Your task to perform on an android device: Add razer huntsman to the cart on newegg Image 0: 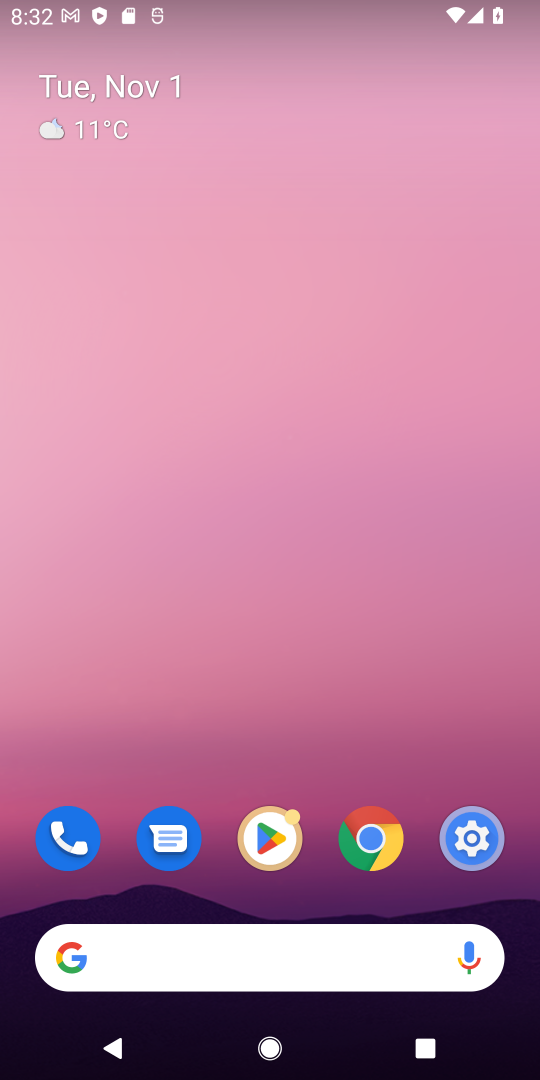
Step 0: click (172, 962)
Your task to perform on an android device: Add razer huntsman to the cart on newegg Image 1: 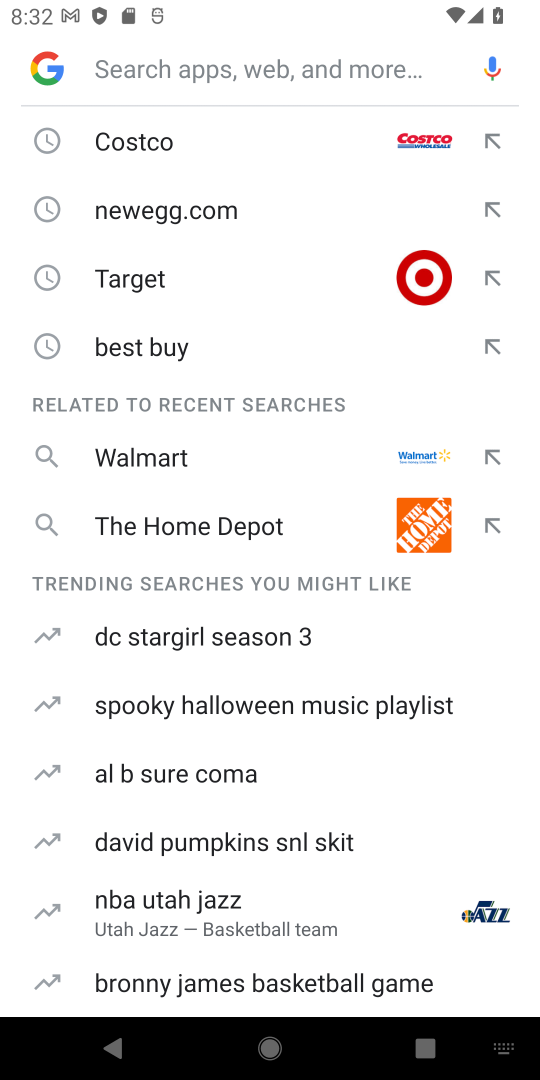
Step 1: type "newegg"
Your task to perform on an android device: Add razer huntsman to the cart on newegg Image 2: 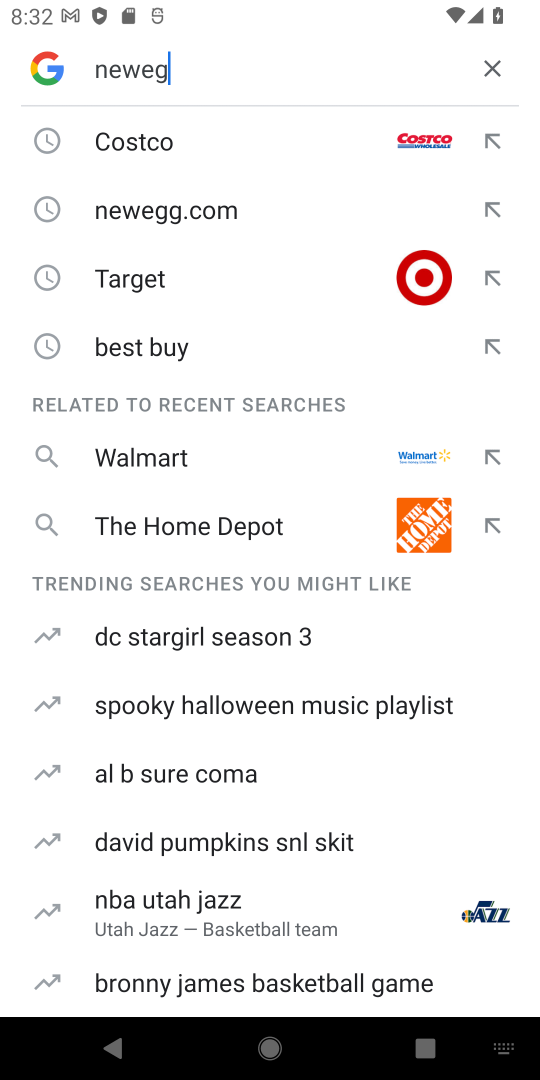
Step 2: press enter
Your task to perform on an android device: Add razer huntsman to the cart on newegg Image 3: 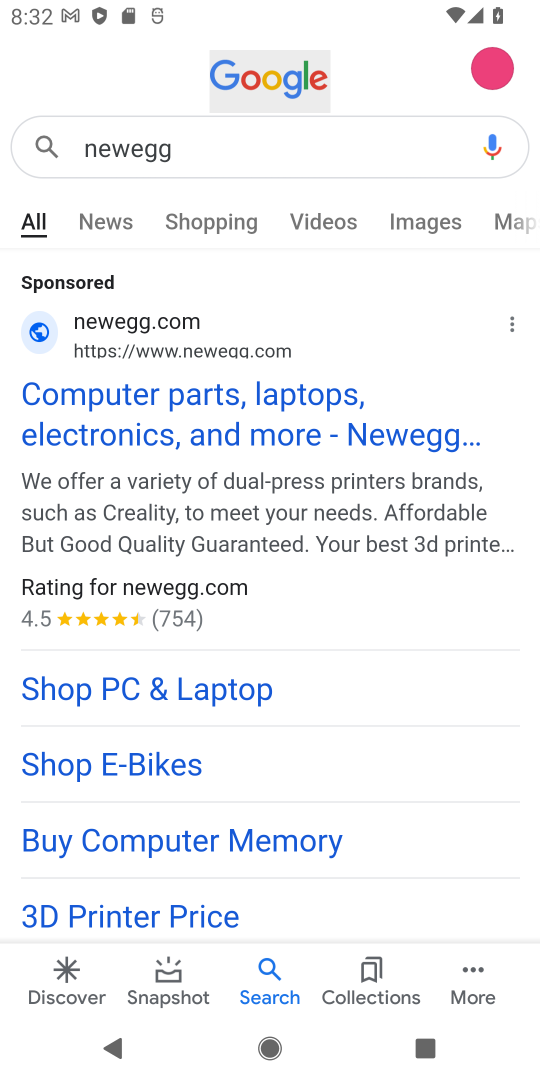
Step 3: drag from (385, 799) to (402, 451)
Your task to perform on an android device: Add razer huntsman to the cart on newegg Image 4: 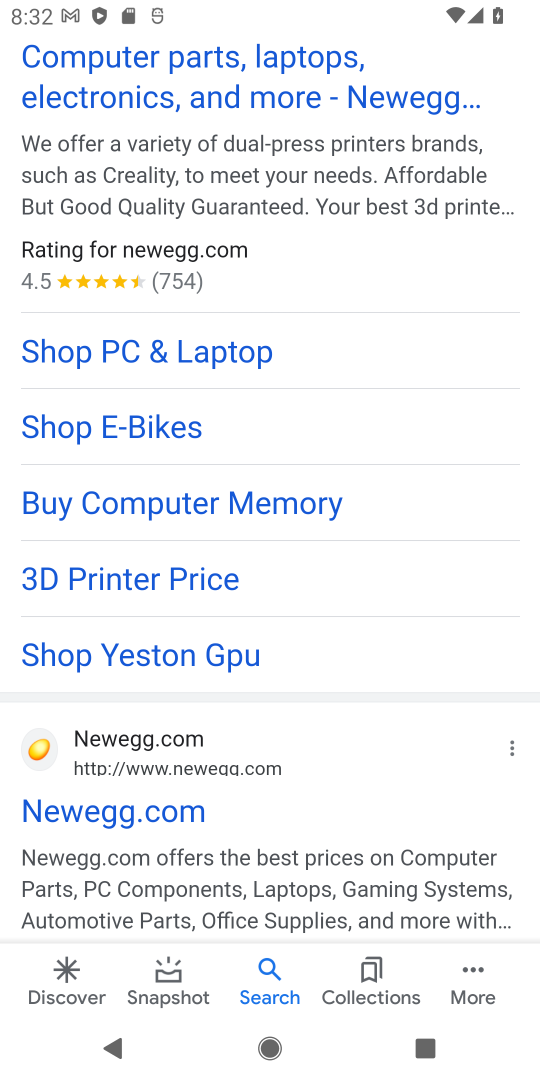
Step 4: click (174, 818)
Your task to perform on an android device: Add razer huntsman to the cart on newegg Image 5: 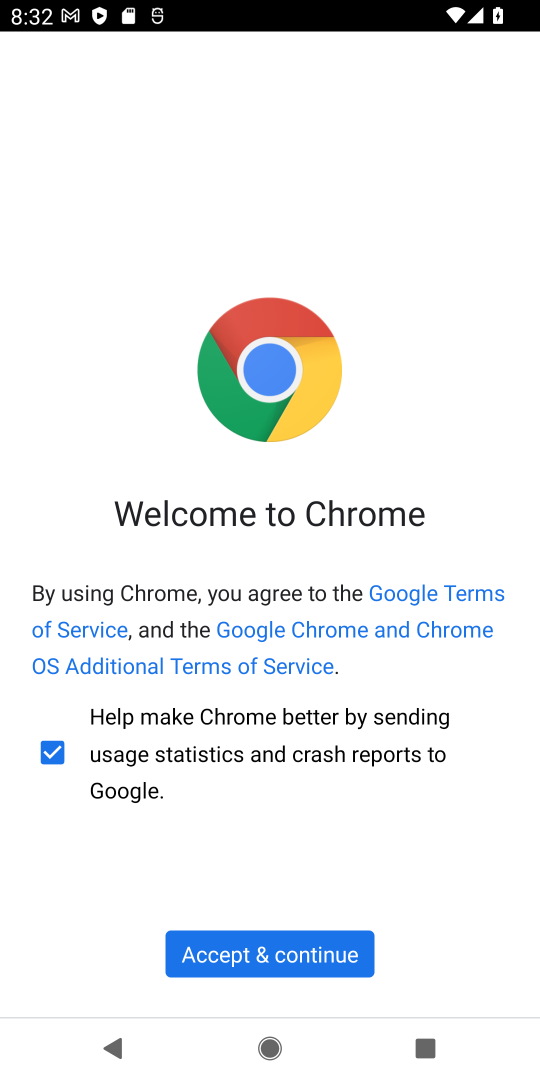
Step 5: click (317, 952)
Your task to perform on an android device: Add razer huntsman to the cart on newegg Image 6: 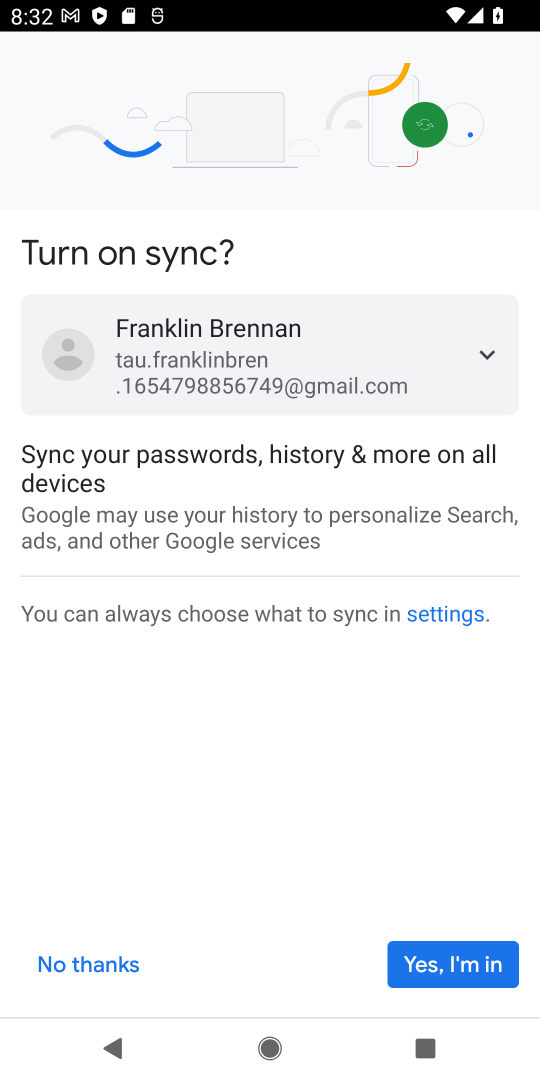
Step 6: click (455, 974)
Your task to perform on an android device: Add razer huntsman to the cart on newegg Image 7: 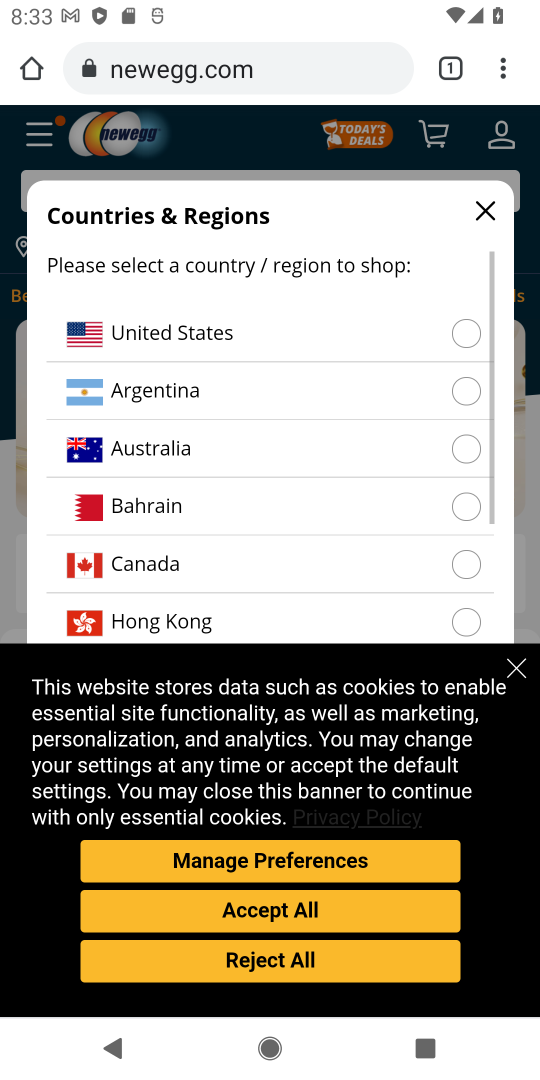
Step 7: click (81, 189)
Your task to perform on an android device: Add razer huntsman to the cart on newegg Image 8: 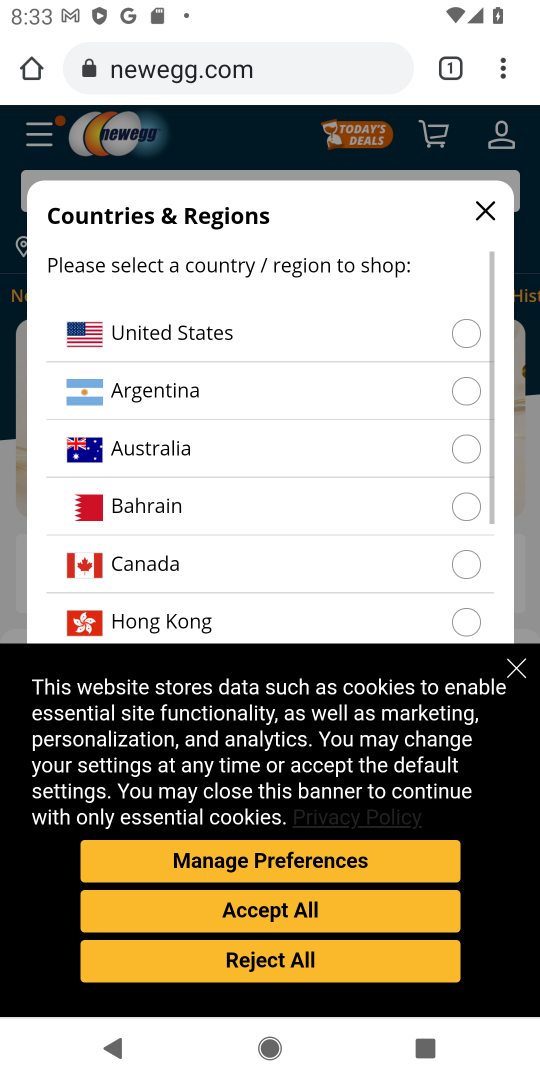
Step 8: click (485, 211)
Your task to perform on an android device: Add razer huntsman to the cart on newegg Image 9: 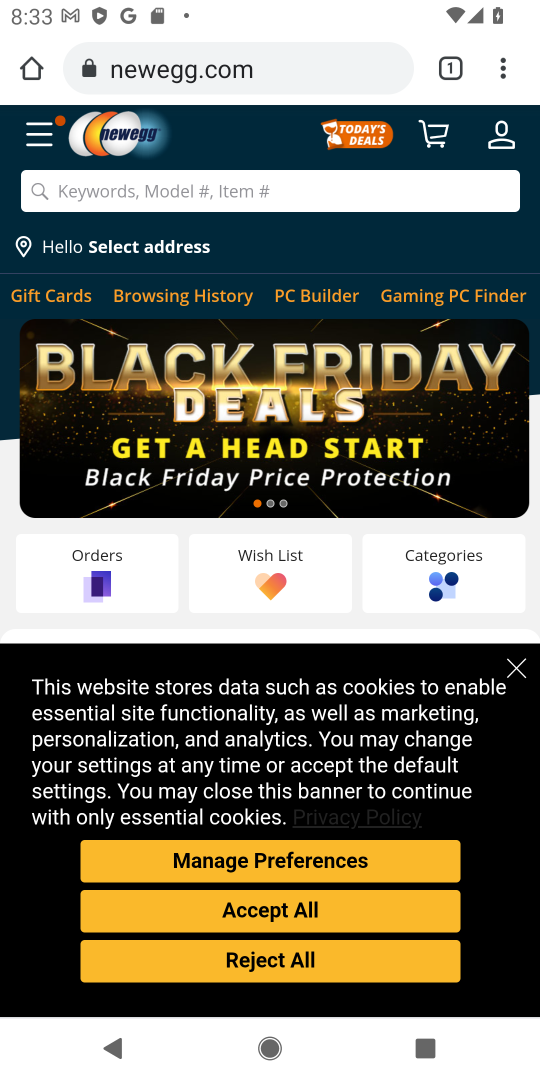
Step 9: click (286, 183)
Your task to perform on an android device: Add razer huntsman to the cart on newegg Image 10: 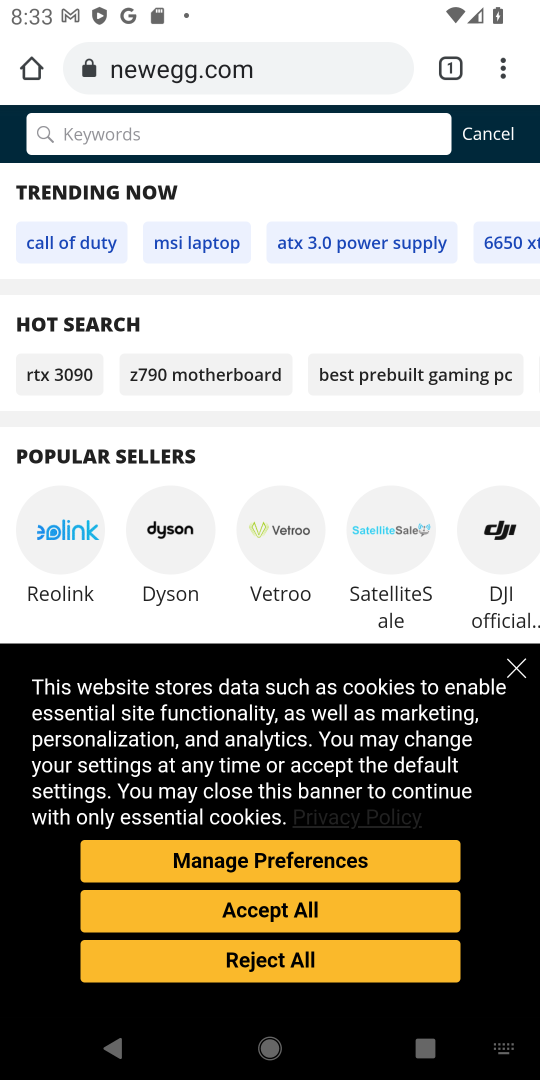
Step 10: type "razer huntsman"
Your task to perform on an android device: Add razer huntsman to the cart on newegg Image 11: 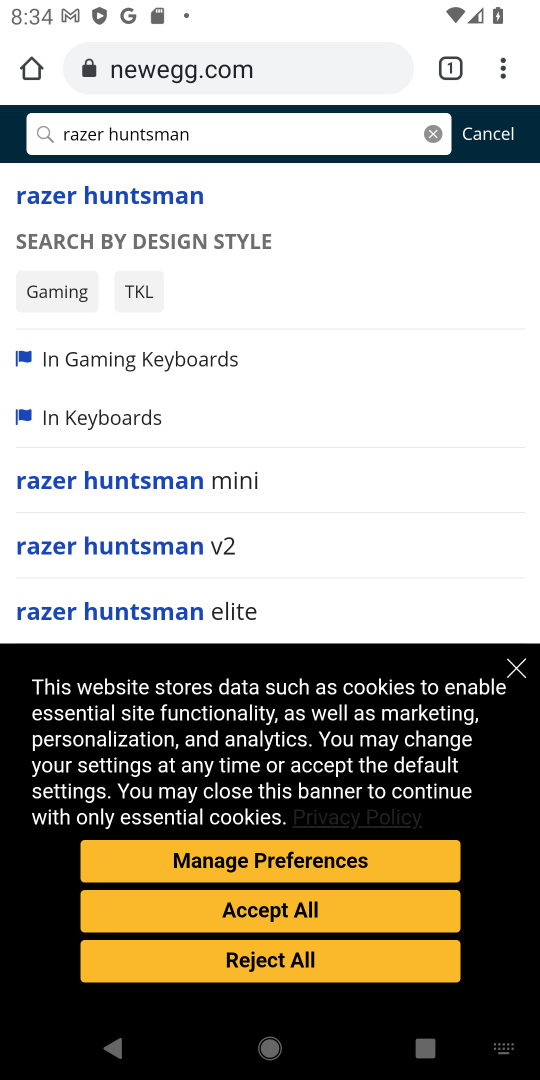
Step 11: click (167, 193)
Your task to perform on an android device: Add razer huntsman to the cart on newegg Image 12: 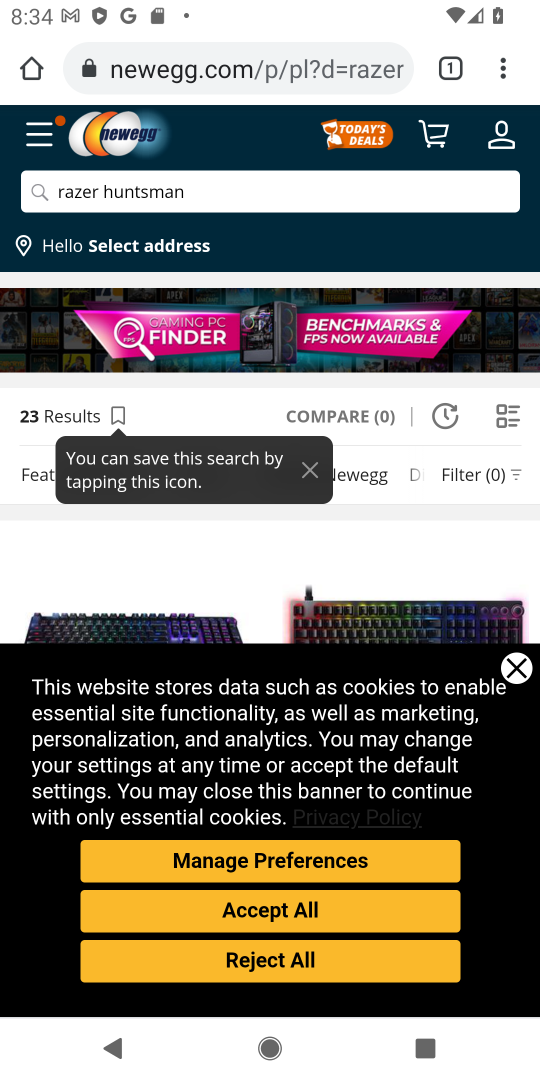
Step 12: click (335, 905)
Your task to perform on an android device: Add razer huntsman to the cart on newegg Image 13: 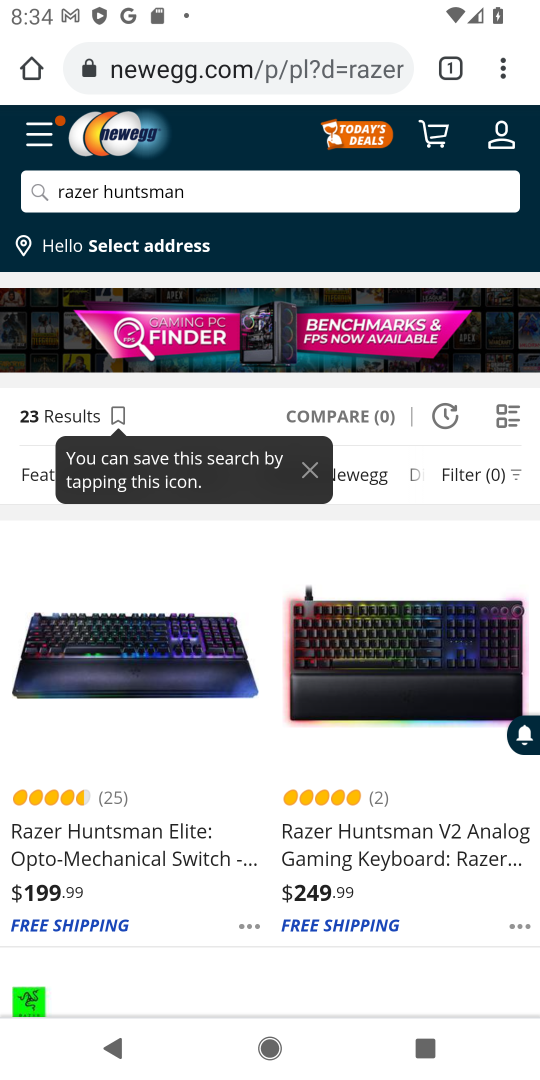
Step 13: click (81, 836)
Your task to perform on an android device: Add razer huntsman to the cart on newegg Image 14: 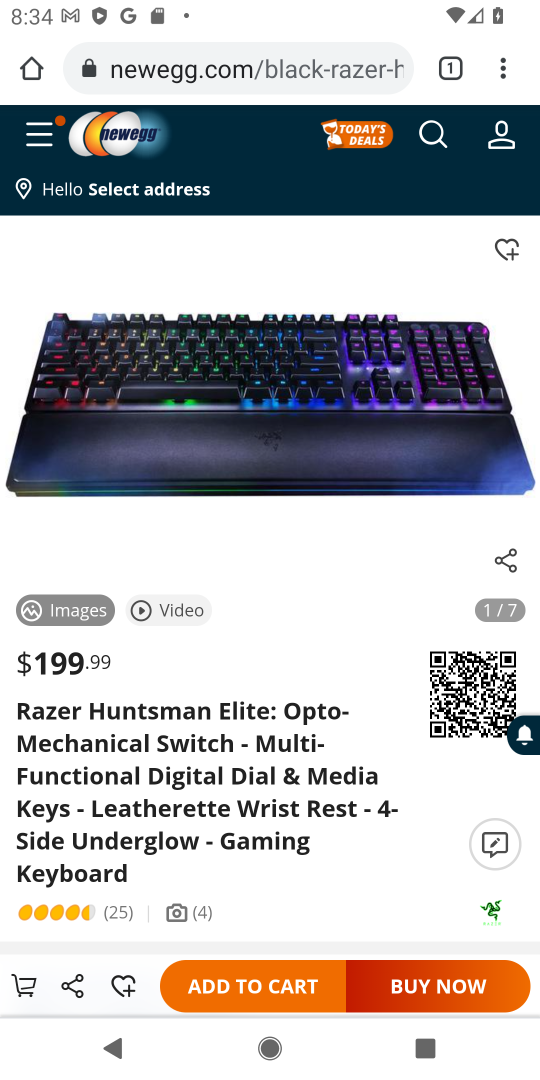
Step 14: click (261, 978)
Your task to perform on an android device: Add razer huntsman to the cart on newegg Image 15: 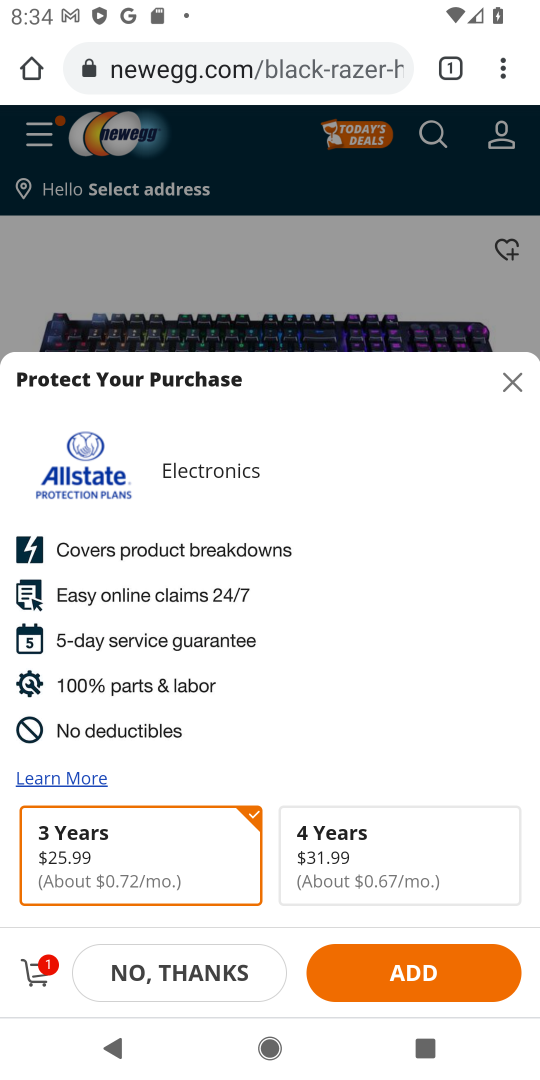
Step 15: click (422, 985)
Your task to perform on an android device: Add razer huntsman to the cart on newegg Image 16: 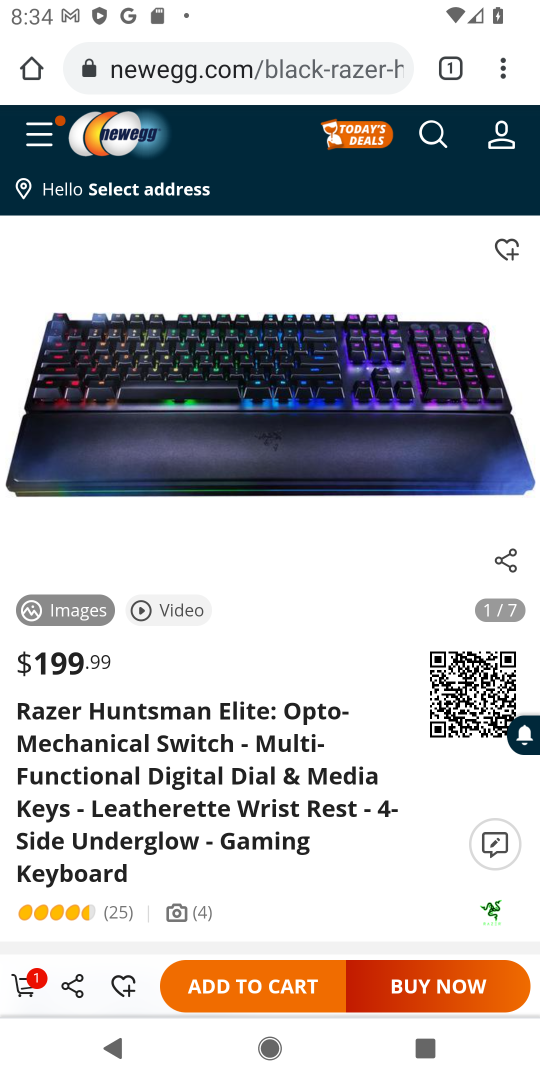
Step 16: task complete